Your task to perform on an android device: turn off picture-in-picture Image 0: 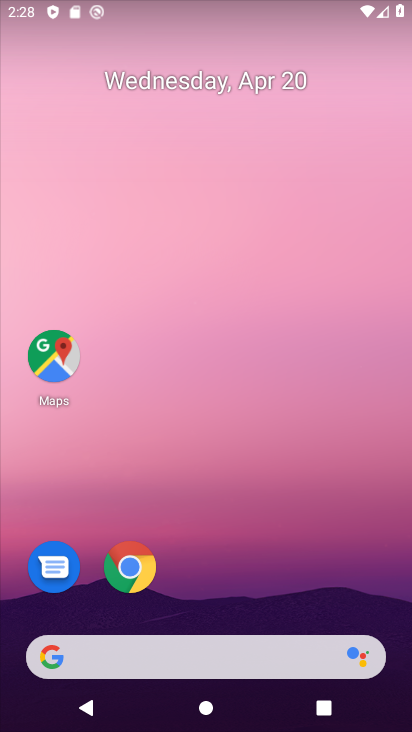
Step 0: click (129, 571)
Your task to perform on an android device: turn off picture-in-picture Image 1: 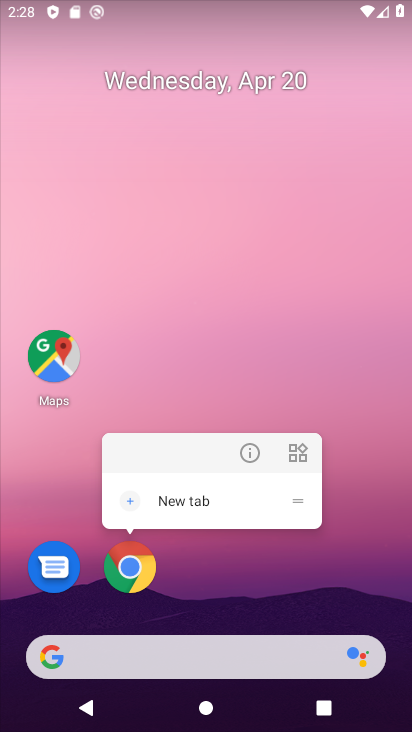
Step 1: click (249, 446)
Your task to perform on an android device: turn off picture-in-picture Image 2: 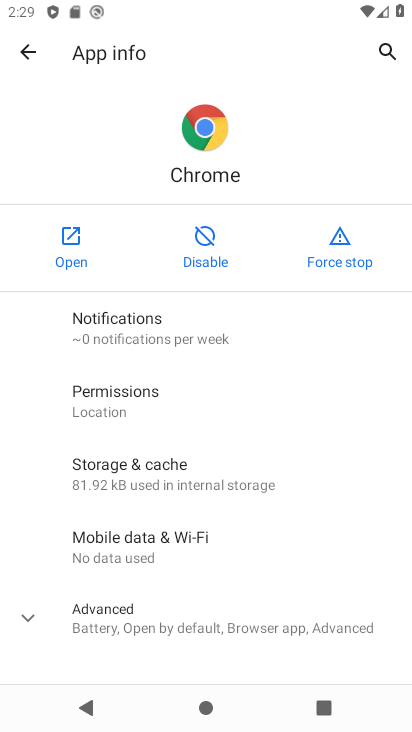
Step 2: drag from (160, 487) to (182, 159)
Your task to perform on an android device: turn off picture-in-picture Image 3: 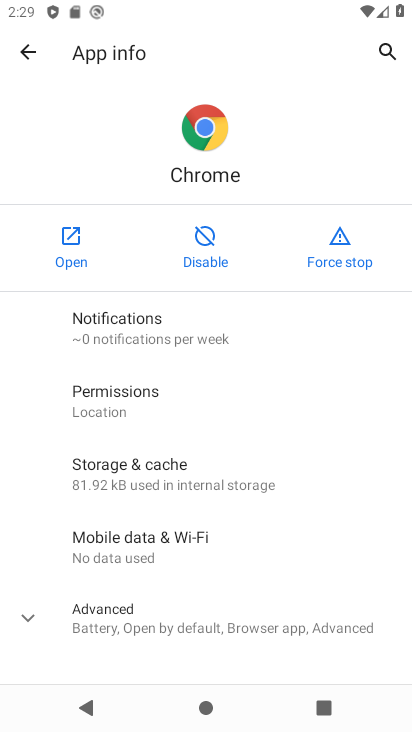
Step 3: click (138, 634)
Your task to perform on an android device: turn off picture-in-picture Image 4: 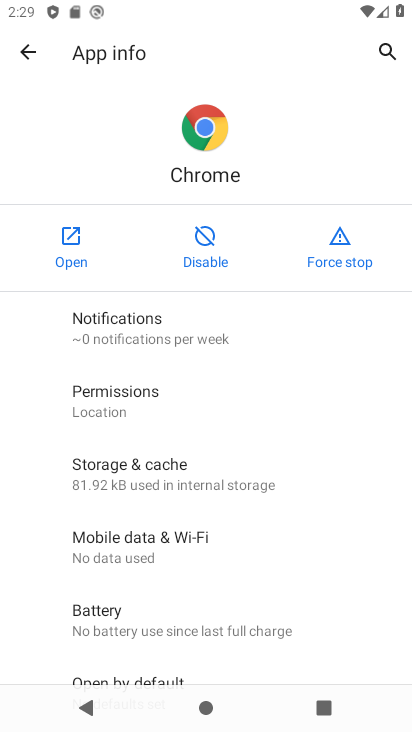
Step 4: drag from (160, 465) to (207, 238)
Your task to perform on an android device: turn off picture-in-picture Image 5: 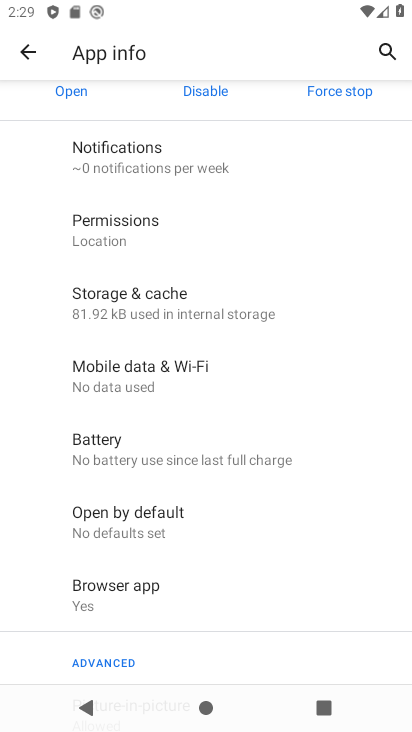
Step 5: drag from (165, 603) to (229, 241)
Your task to perform on an android device: turn off picture-in-picture Image 6: 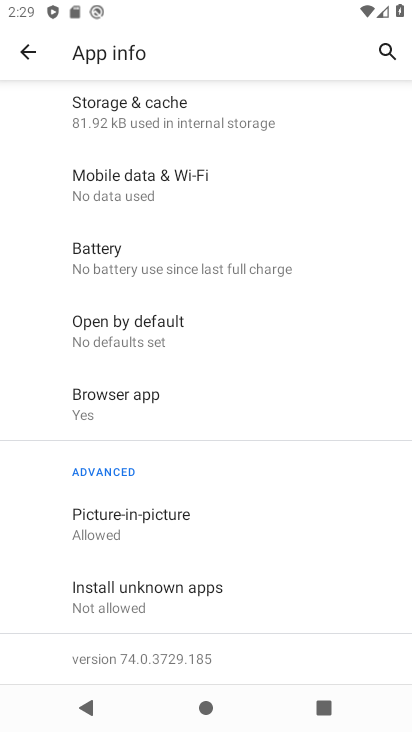
Step 6: click (162, 520)
Your task to perform on an android device: turn off picture-in-picture Image 7: 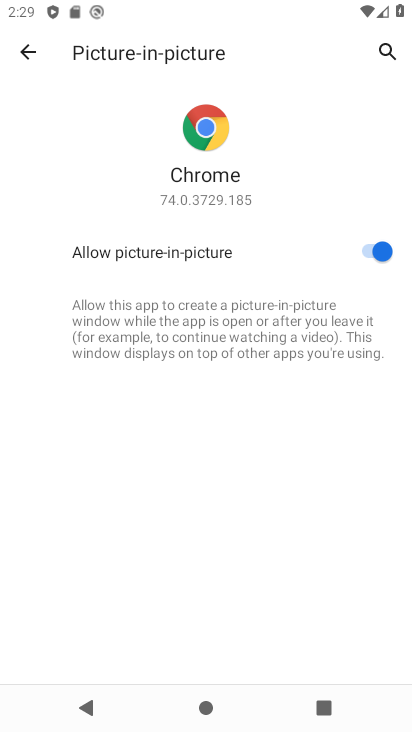
Step 7: click (354, 244)
Your task to perform on an android device: turn off picture-in-picture Image 8: 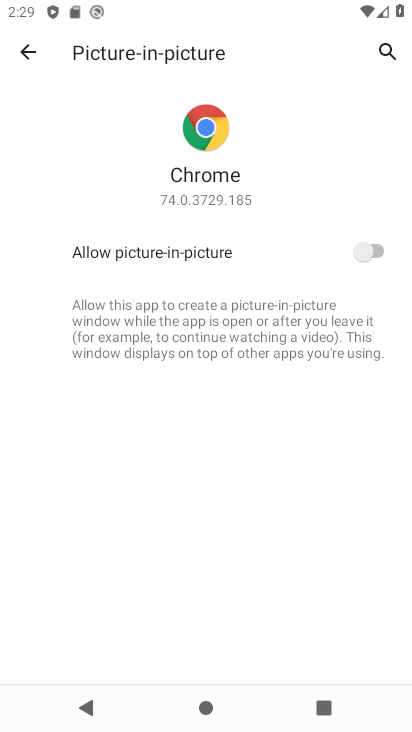
Step 8: task complete